Your task to perform on an android device: Go to display settings Image 0: 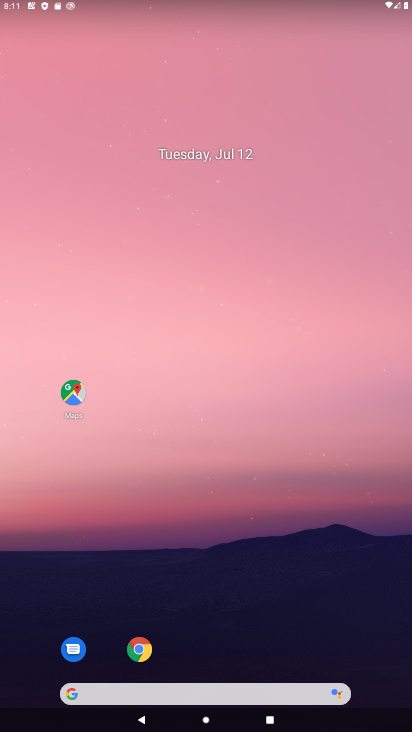
Step 0: drag from (181, 636) to (305, 97)
Your task to perform on an android device: Go to display settings Image 1: 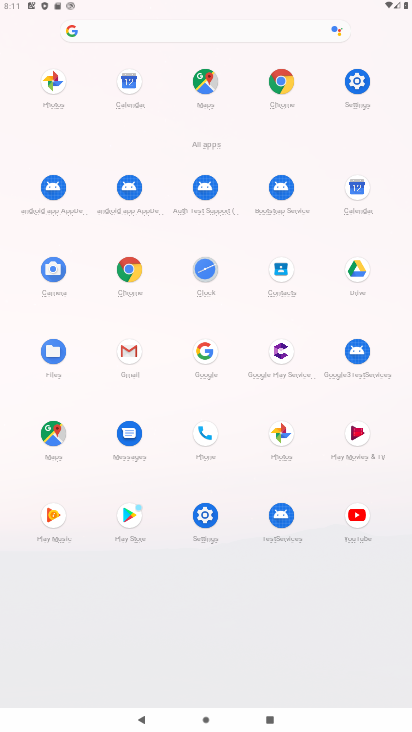
Step 1: click (358, 81)
Your task to perform on an android device: Go to display settings Image 2: 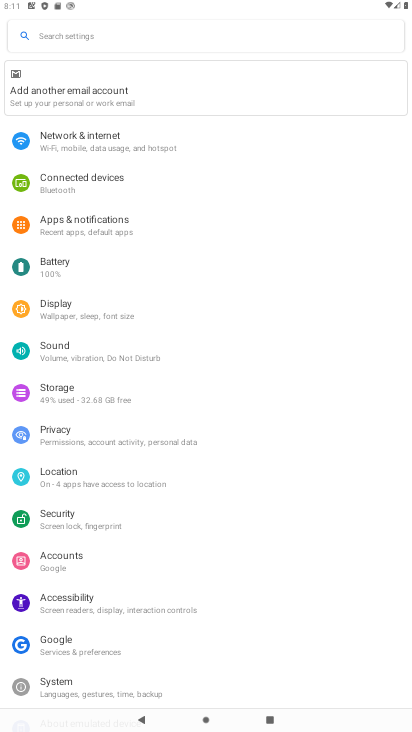
Step 2: click (69, 308)
Your task to perform on an android device: Go to display settings Image 3: 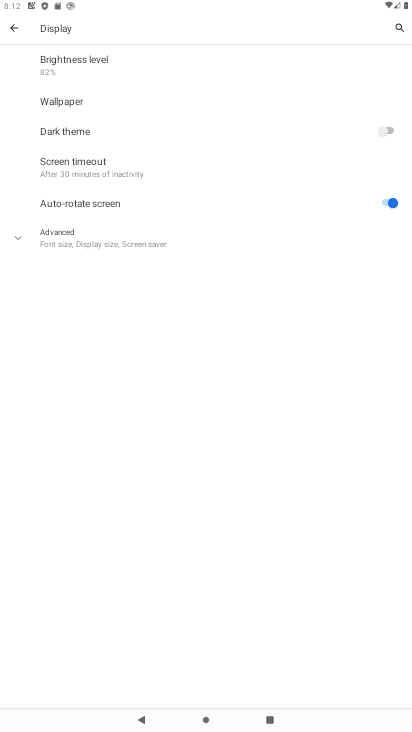
Step 3: task complete